Your task to perform on an android device: toggle notifications settings in the gmail app Image 0: 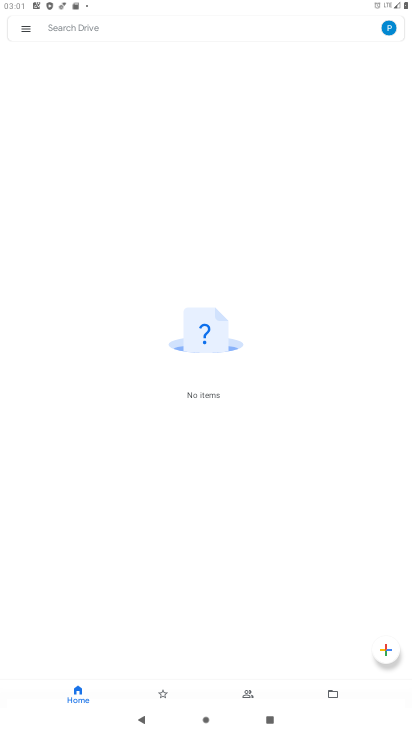
Step 0: press home button
Your task to perform on an android device: toggle notifications settings in the gmail app Image 1: 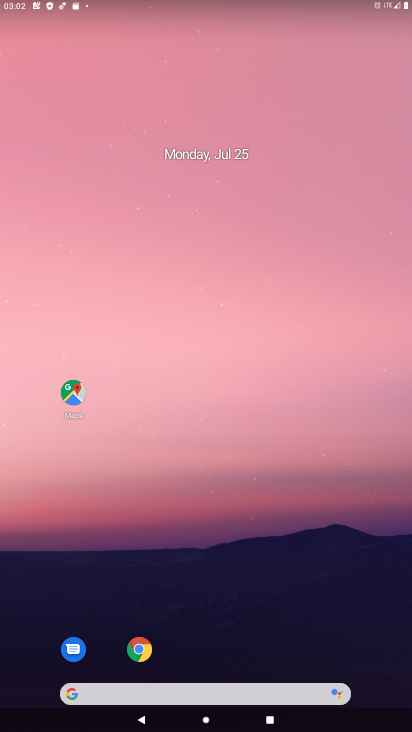
Step 1: drag from (381, 666) to (350, 137)
Your task to perform on an android device: toggle notifications settings in the gmail app Image 2: 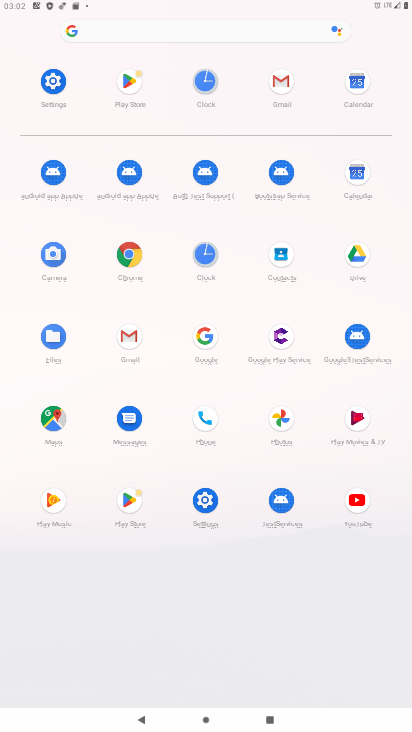
Step 2: click (129, 339)
Your task to perform on an android device: toggle notifications settings in the gmail app Image 3: 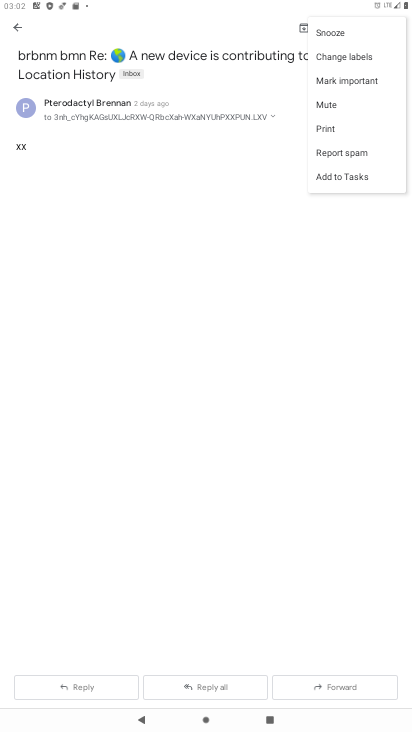
Step 3: press back button
Your task to perform on an android device: toggle notifications settings in the gmail app Image 4: 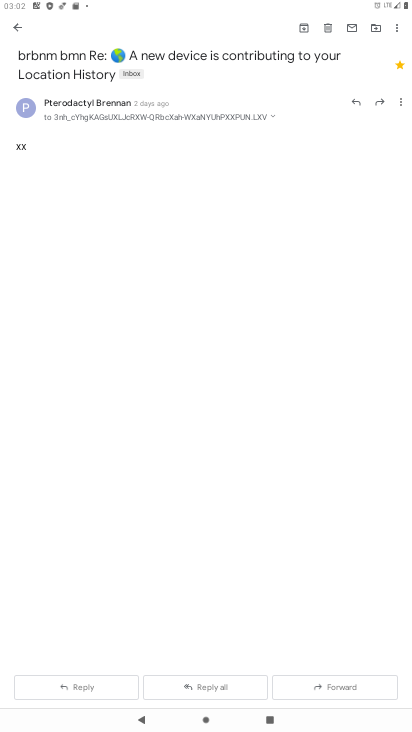
Step 4: press back button
Your task to perform on an android device: toggle notifications settings in the gmail app Image 5: 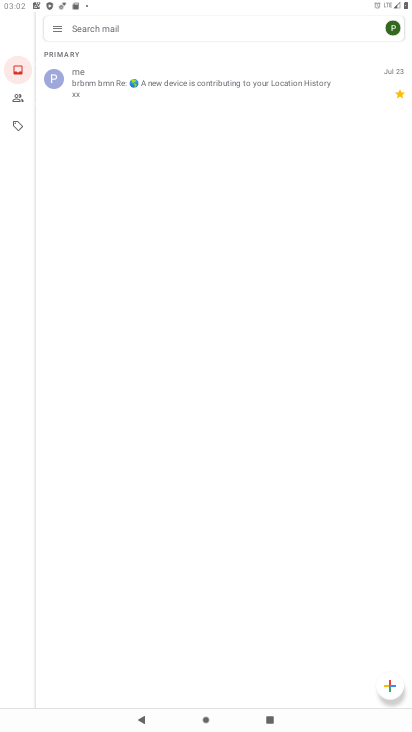
Step 5: click (58, 28)
Your task to perform on an android device: toggle notifications settings in the gmail app Image 6: 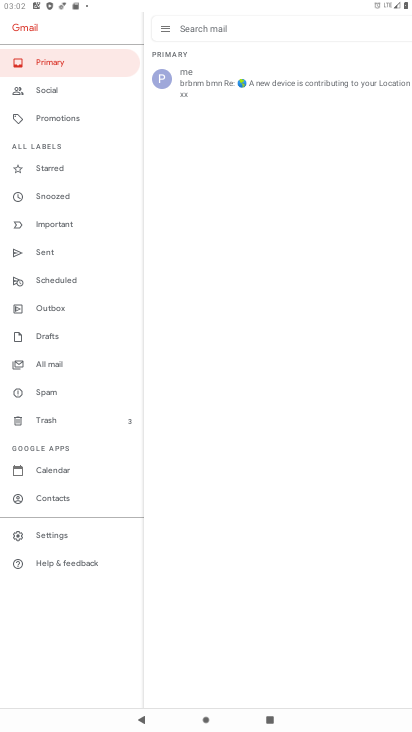
Step 6: click (45, 528)
Your task to perform on an android device: toggle notifications settings in the gmail app Image 7: 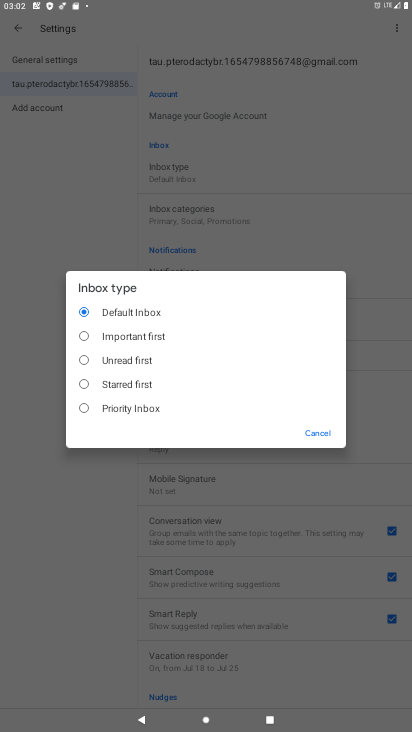
Step 7: click (320, 436)
Your task to perform on an android device: toggle notifications settings in the gmail app Image 8: 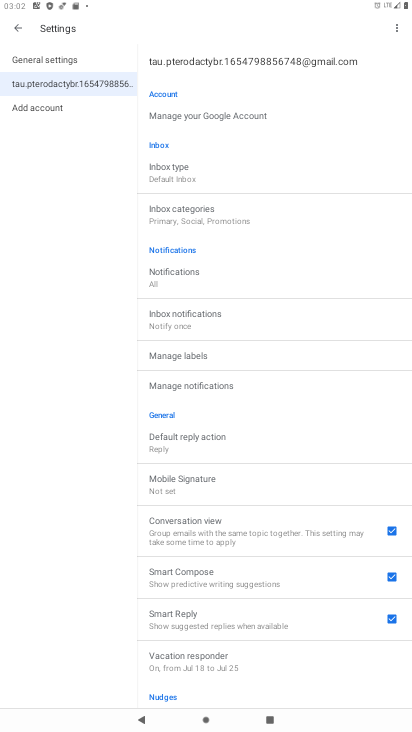
Step 8: click (196, 379)
Your task to perform on an android device: toggle notifications settings in the gmail app Image 9: 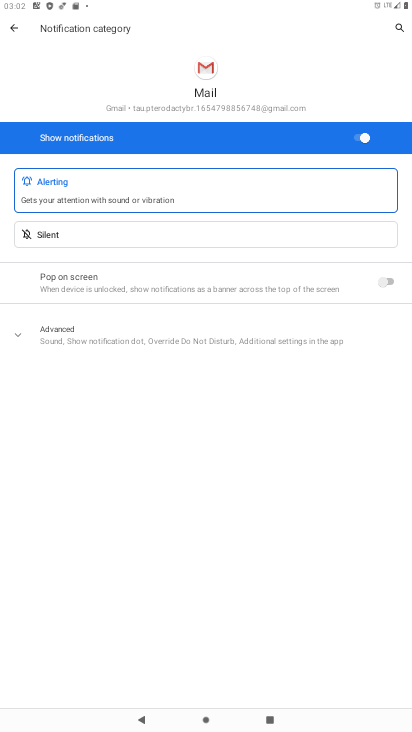
Step 9: click (356, 138)
Your task to perform on an android device: toggle notifications settings in the gmail app Image 10: 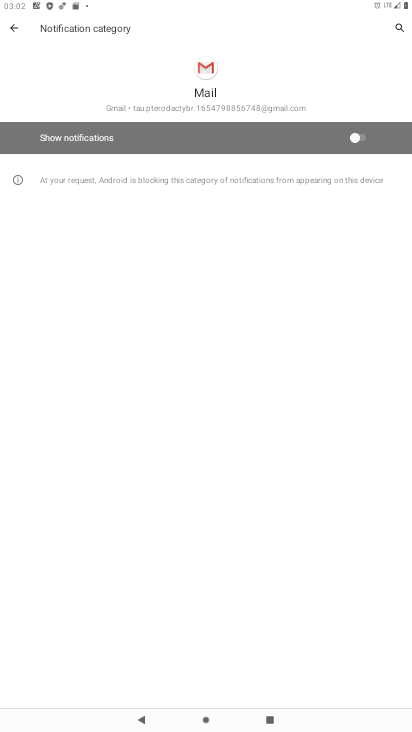
Step 10: task complete